Your task to perform on an android device: Set the phone to "Do not disturb". Image 0: 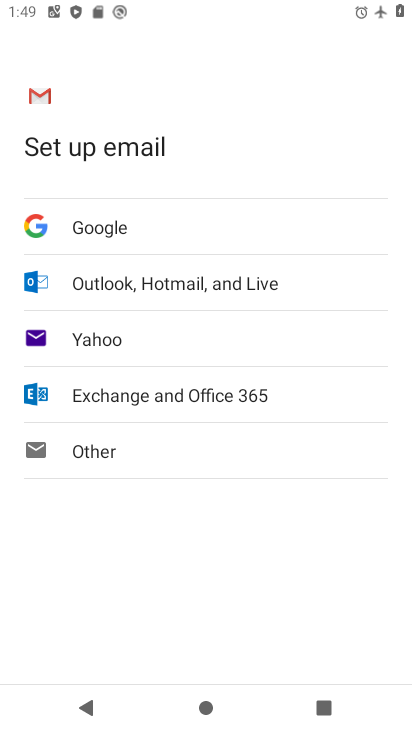
Step 0: press home button
Your task to perform on an android device: Set the phone to "Do not disturb". Image 1: 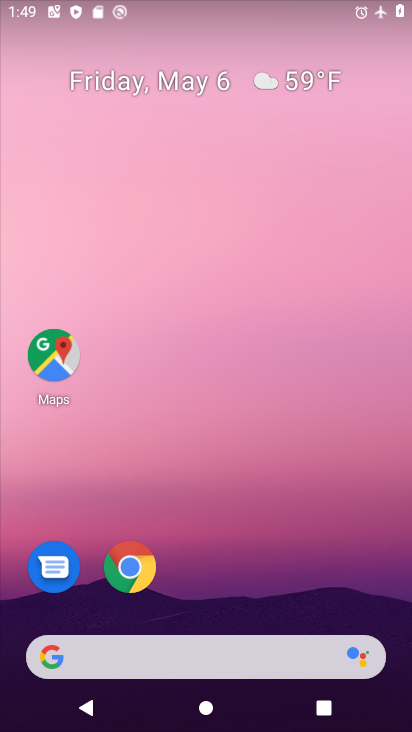
Step 1: drag from (347, 9) to (324, 552)
Your task to perform on an android device: Set the phone to "Do not disturb". Image 2: 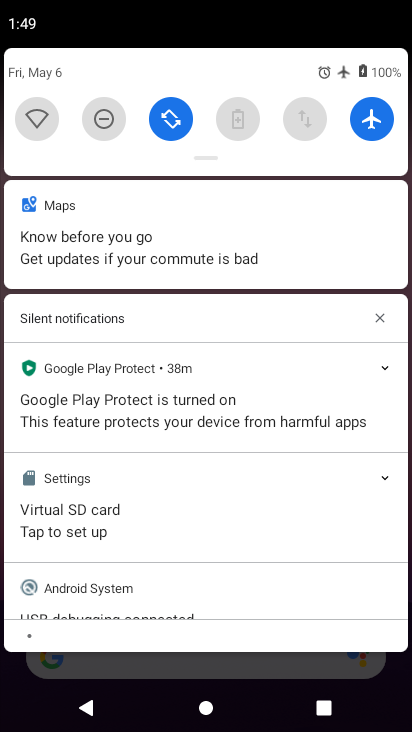
Step 2: click (108, 132)
Your task to perform on an android device: Set the phone to "Do not disturb". Image 3: 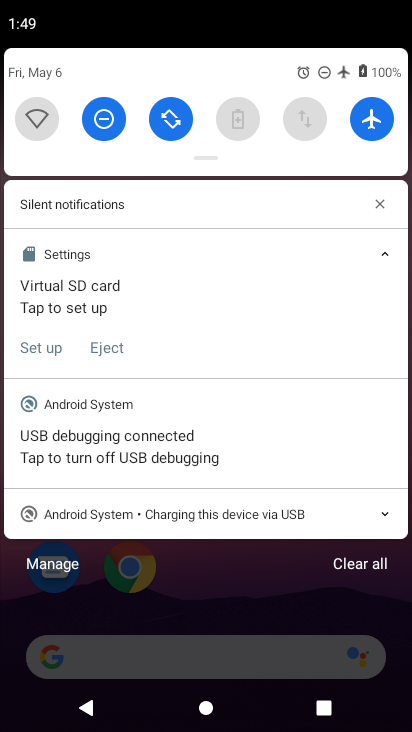
Step 3: task complete